Your task to perform on an android device: check out phone information Image 0: 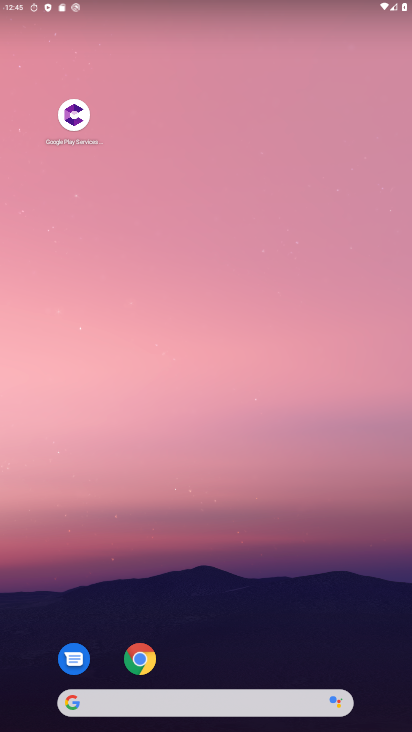
Step 0: drag from (229, 706) to (294, 0)
Your task to perform on an android device: check out phone information Image 1: 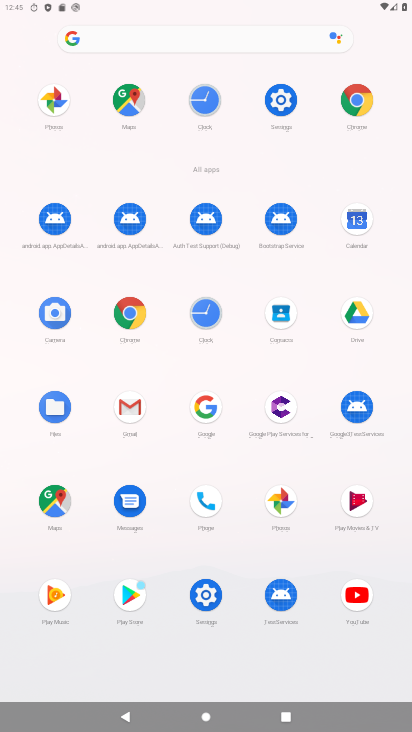
Step 1: click (289, 94)
Your task to perform on an android device: check out phone information Image 2: 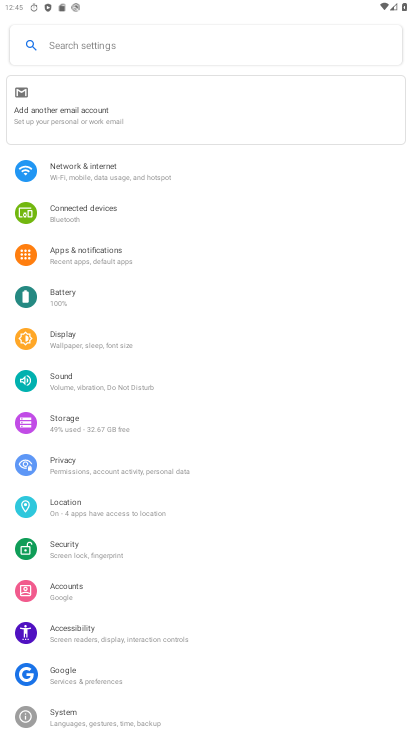
Step 2: drag from (156, 705) to (201, 198)
Your task to perform on an android device: check out phone information Image 3: 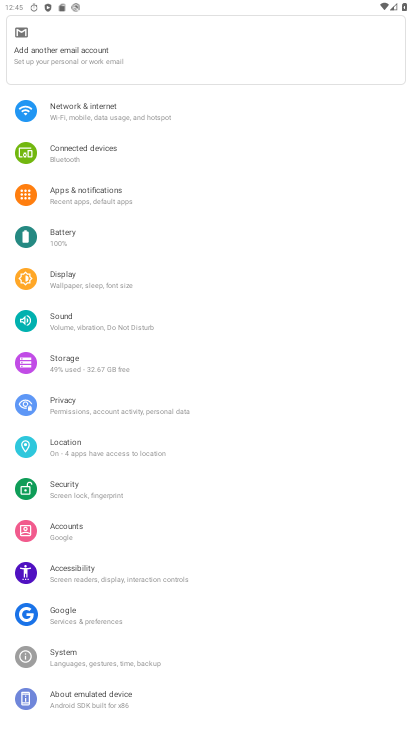
Step 3: click (110, 695)
Your task to perform on an android device: check out phone information Image 4: 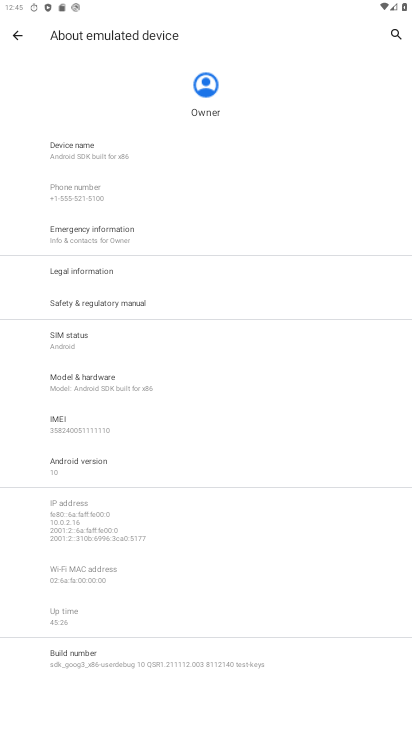
Step 4: task complete